Your task to perform on an android device: turn on showing notifications on the lock screen Image 0: 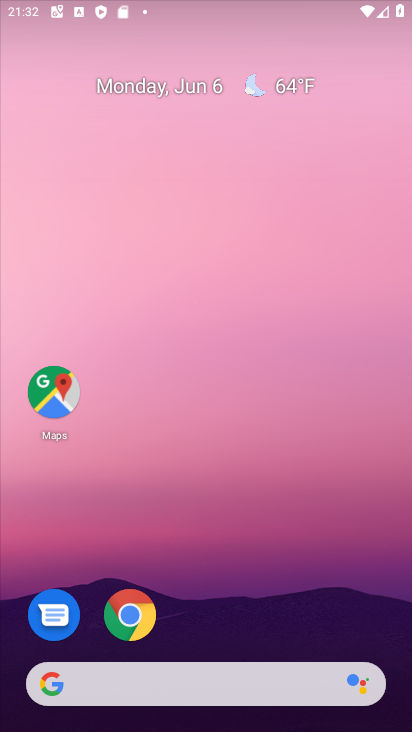
Step 0: drag from (384, 540) to (379, 198)
Your task to perform on an android device: turn on showing notifications on the lock screen Image 1: 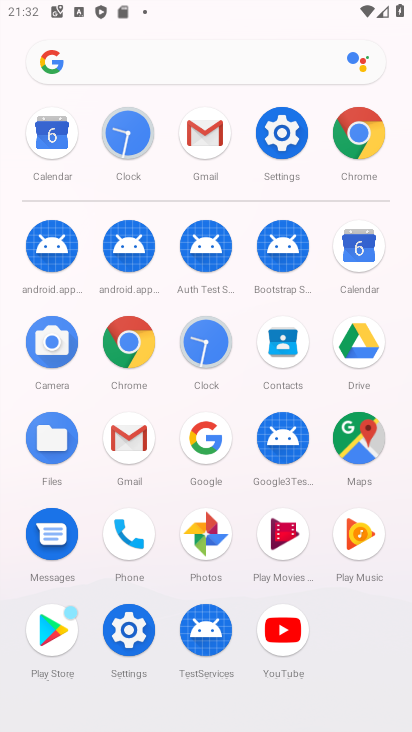
Step 1: click (296, 143)
Your task to perform on an android device: turn on showing notifications on the lock screen Image 2: 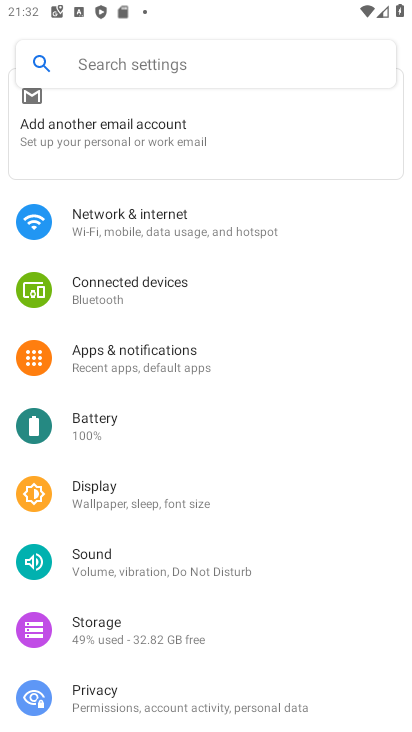
Step 2: click (111, 363)
Your task to perform on an android device: turn on showing notifications on the lock screen Image 3: 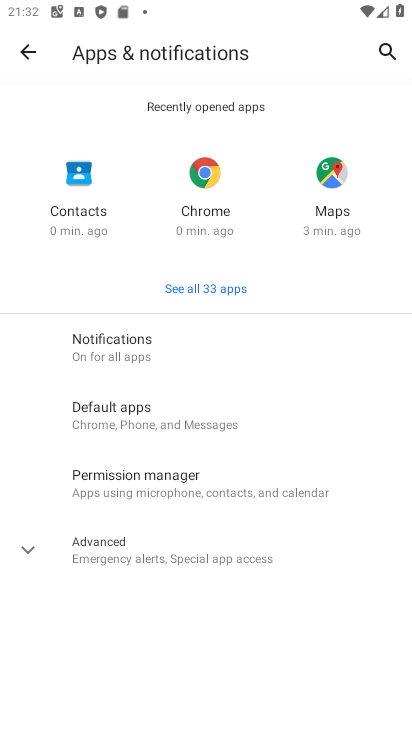
Step 3: click (73, 347)
Your task to perform on an android device: turn on showing notifications on the lock screen Image 4: 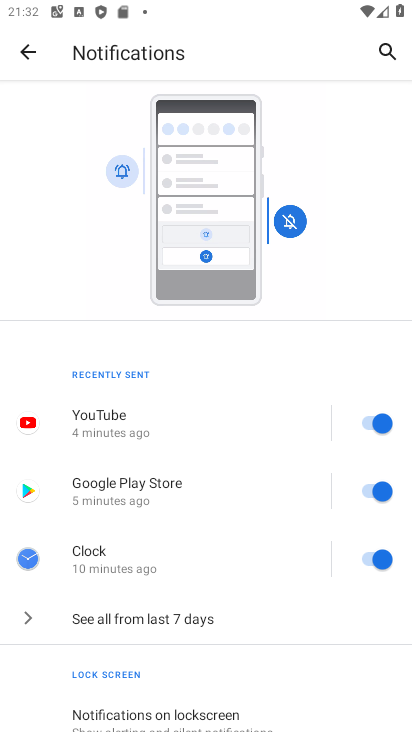
Step 4: click (169, 704)
Your task to perform on an android device: turn on showing notifications on the lock screen Image 5: 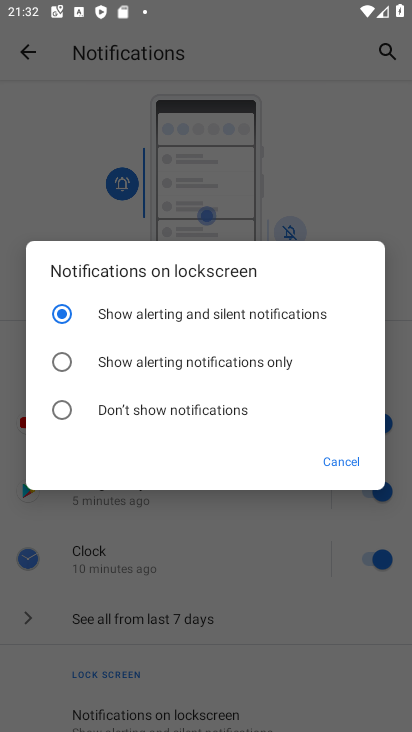
Step 5: task complete